Your task to perform on an android device: turn on data saver in the chrome app Image 0: 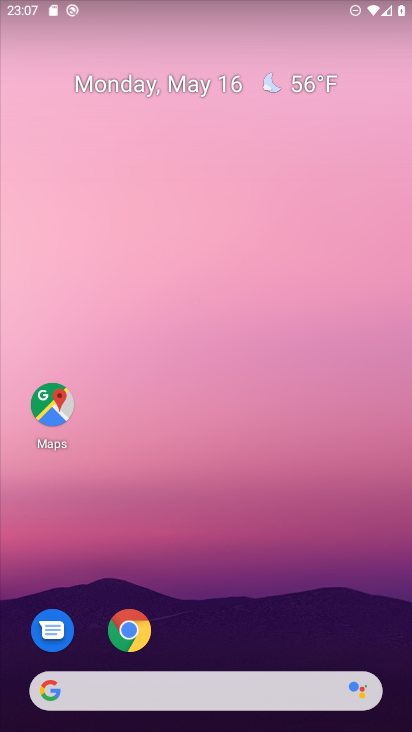
Step 0: click (133, 640)
Your task to perform on an android device: turn on data saver in the chrome app Image 1: 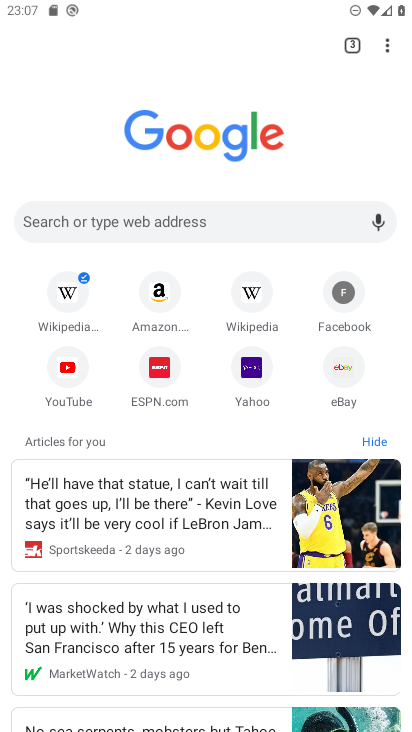
Step 1: click (388, 50)
Your task to perform on an android device: turn on data saver in the chrome app Image 2: 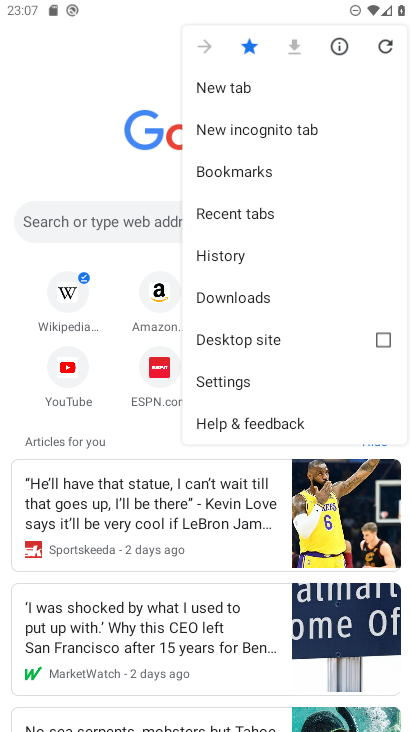
Step 2: click (273, 382)
Your task to perform on an android device: turn on data saver in the chrome app Image 3: 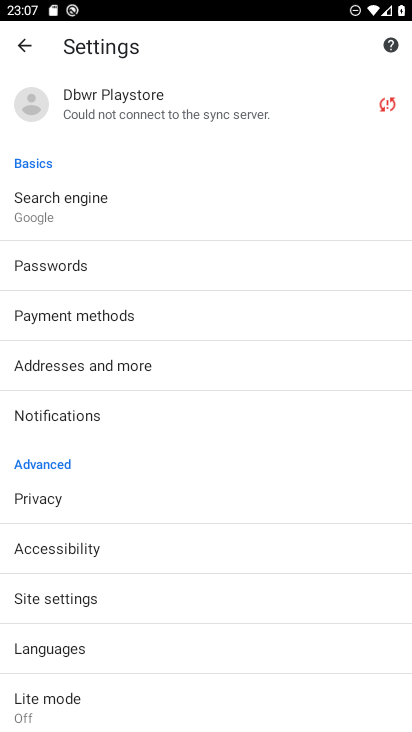
Step 3: click (109, 710)
Your task to perform on an android device: turn on data saver in the chrome app Image 4: 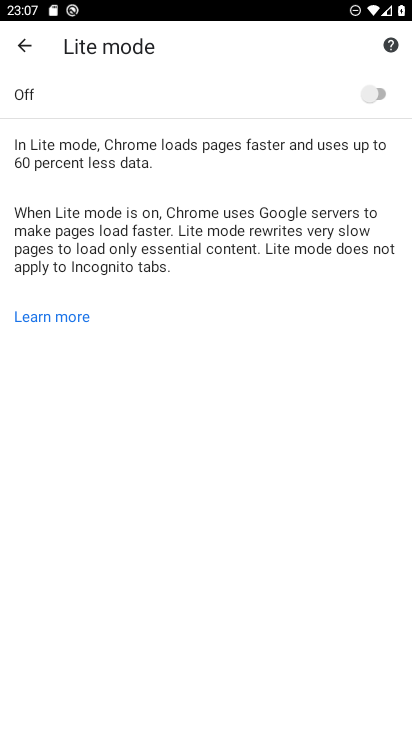
Step 4: click (370, 83)
Your task to perform on an android device: turn on data saver in the chrome app Image 5: 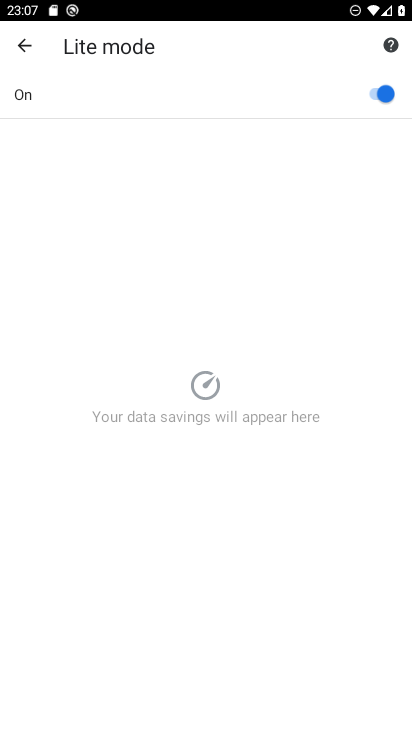
Step 5: task complete